Your task to perform on an android device: What's US dollar exchange rate against the British Pound? Image 0: 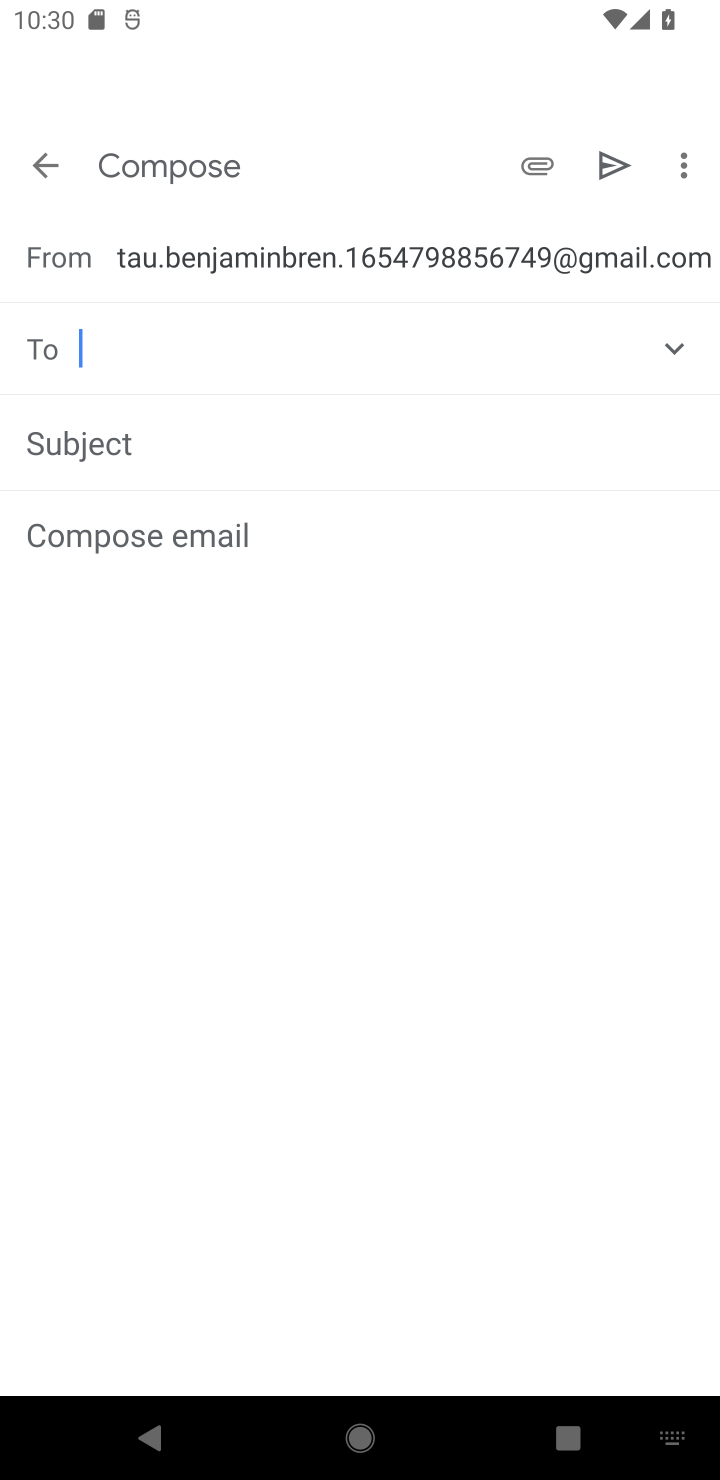
Step 0: press home button
Your task to perform on an android device: What's US dollar exchange rate against the British Pound? Image 1: 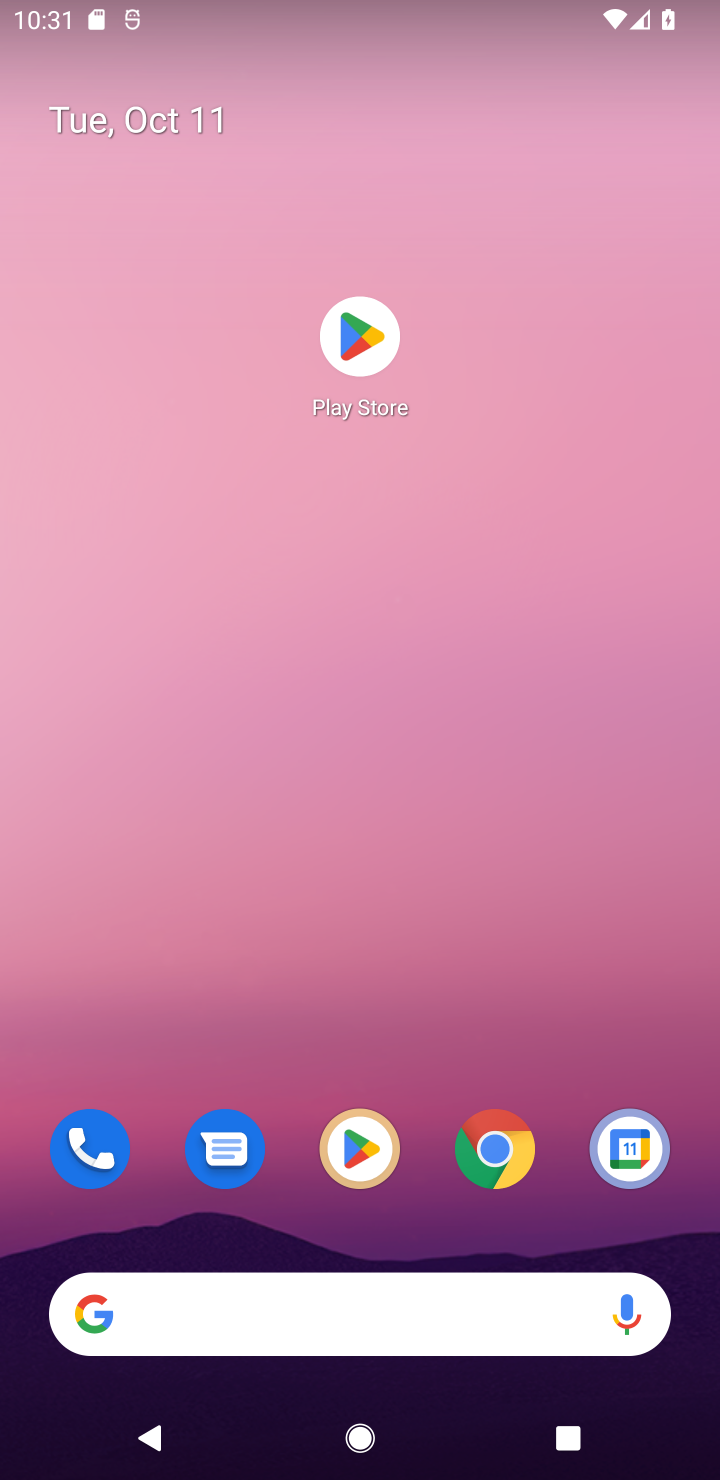
Step 1: click (346, 1293)
Your task to perform on an android device: What's US dollar exchange rate against the British Pound? Image 2: 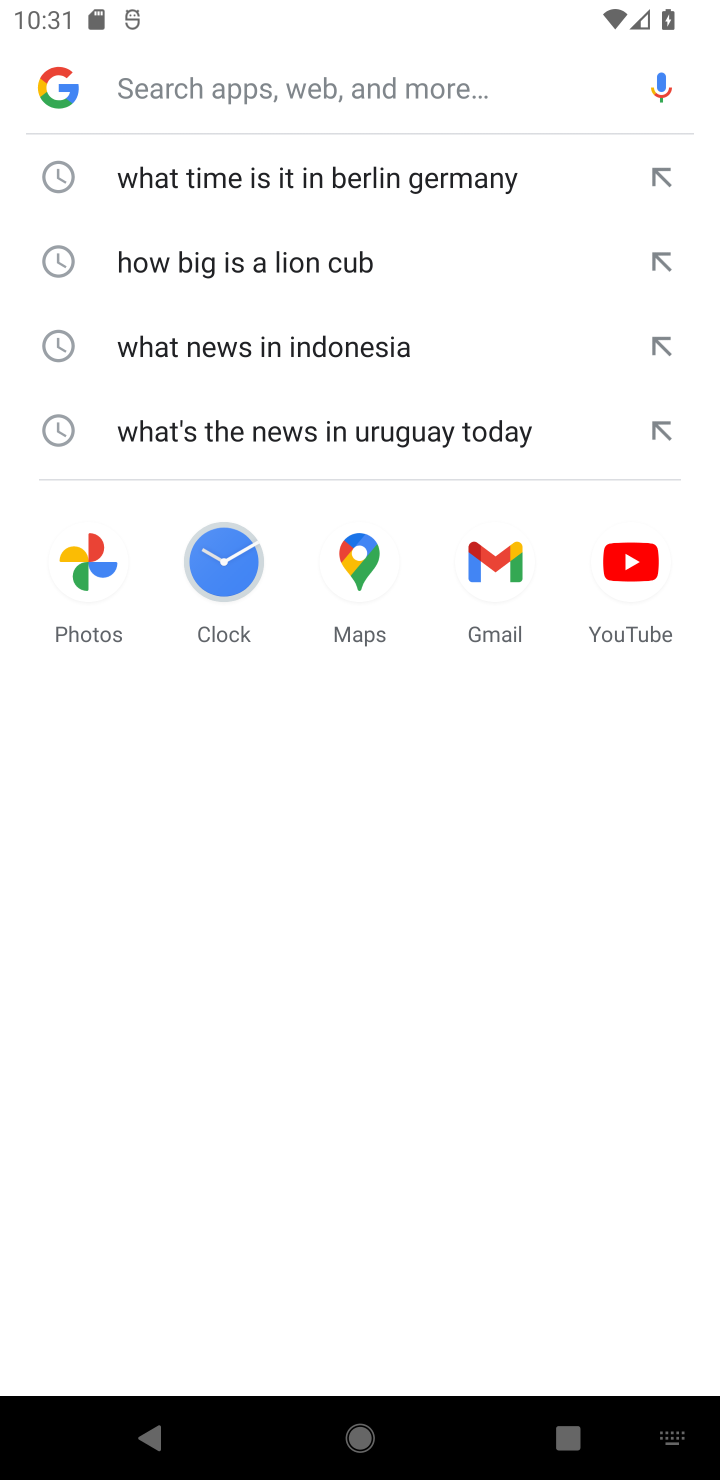
Step 2: type "What's US dollar exchange rate against the British Pound?"
Your task to perform on an android device: What's US dollar exchange rate against the British Pound? Image 3: 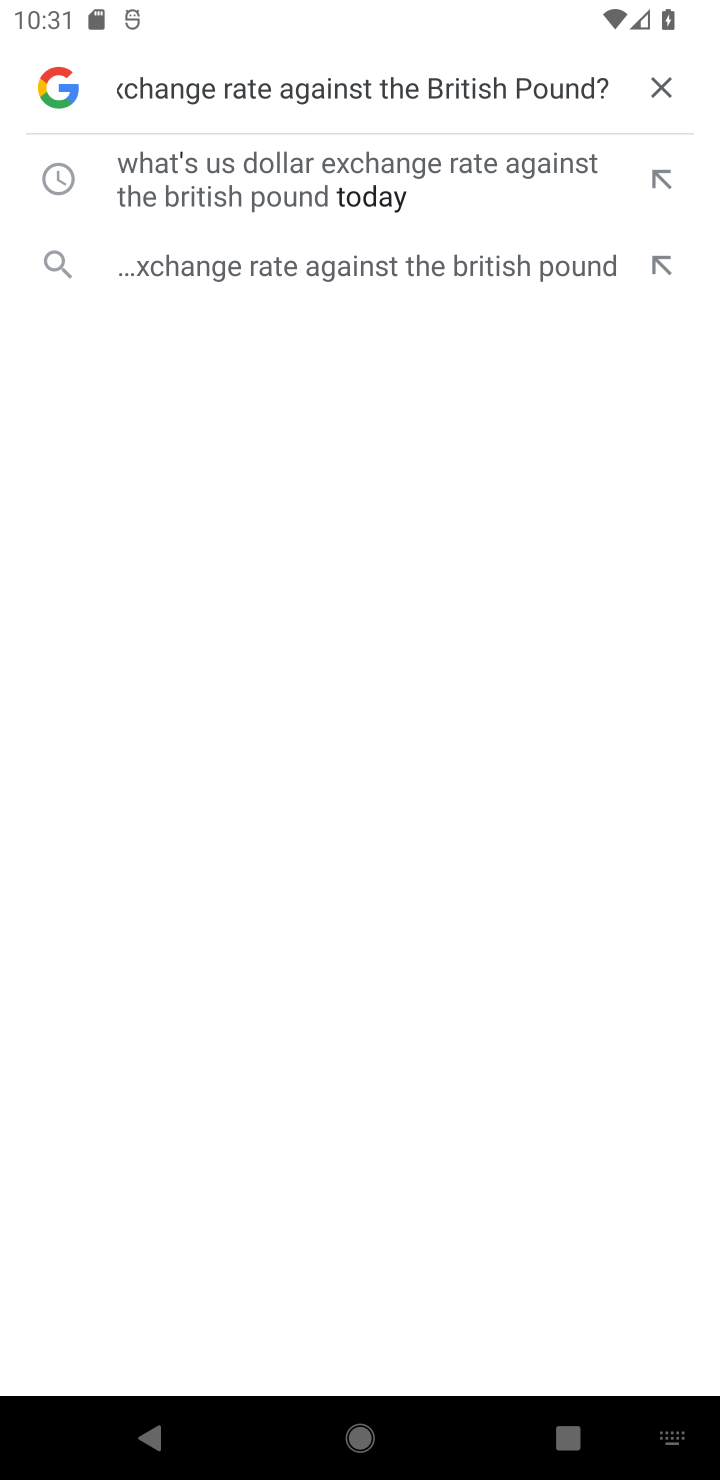
Step 3: click (337, 194)
Your task to perform on an android device: What's US dollar exchange rate against the British Pound? Image 4: 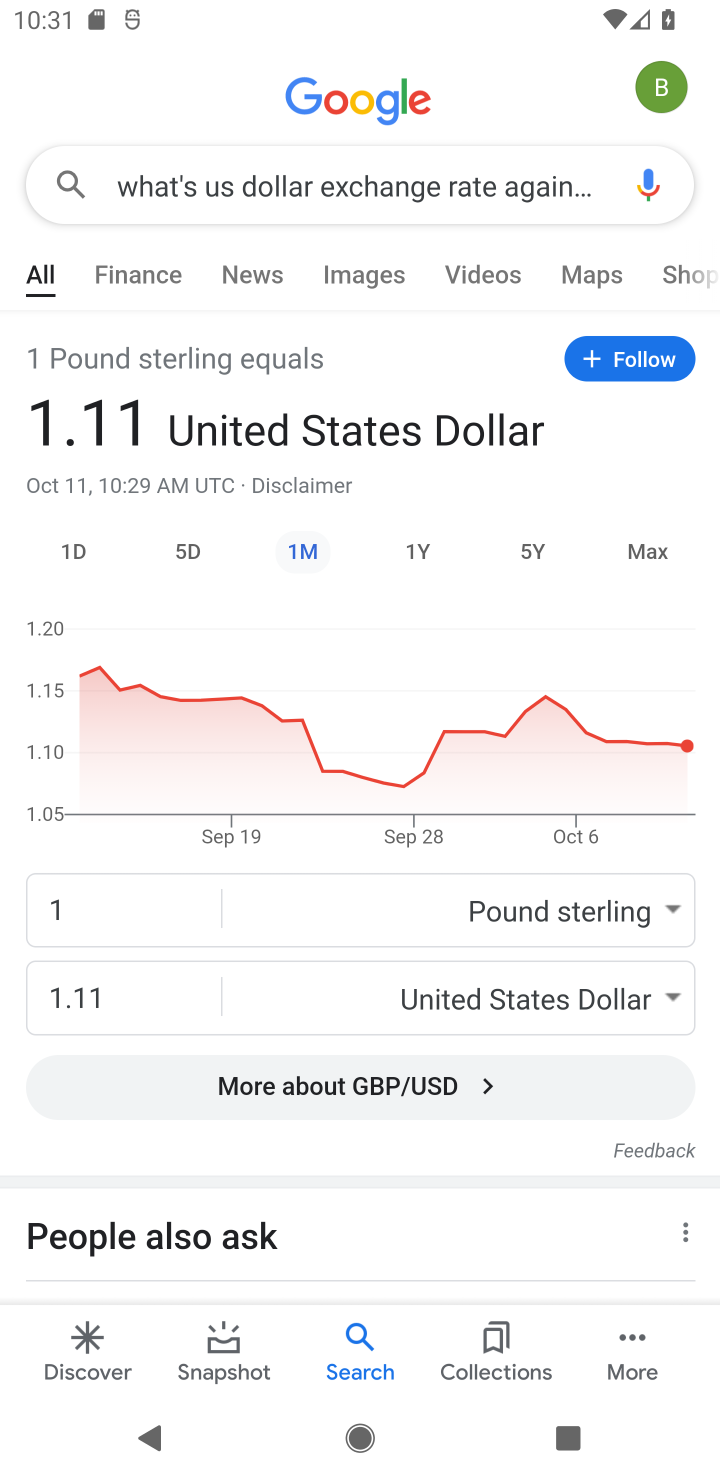
Step 4: task complete